Your task to perform on an android device: change alarm snooze length Image 0: 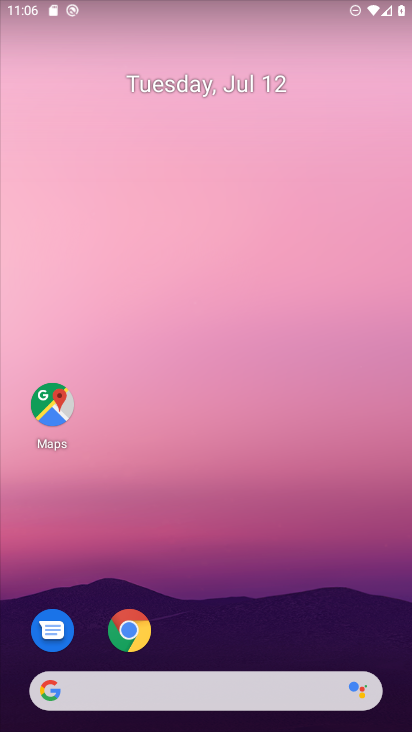
Step 0: drag from (273, 512) to (247, 3)
Your task to perform on an android device: change alarm snooze length Image 1: 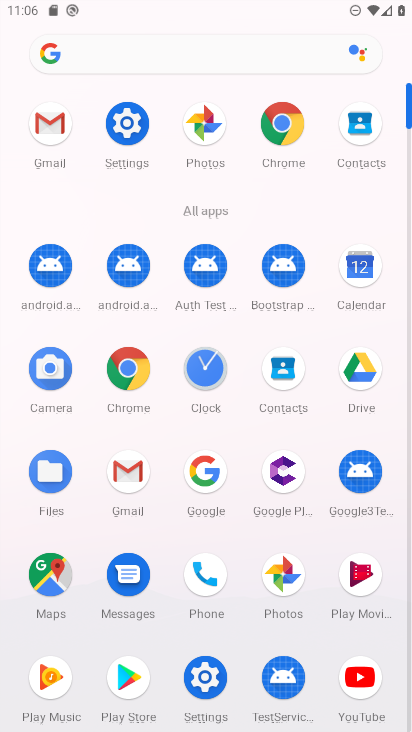
Step 1: click (214, 368)
Your task to perform on an android device: change alarm snooze length Image 2: 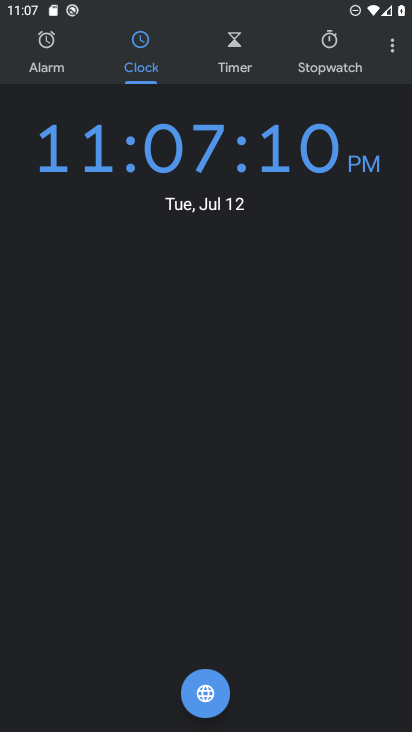
Step 2: click (399, 50)
Your task to perform on an android device: change alarm snooze length Image 3: 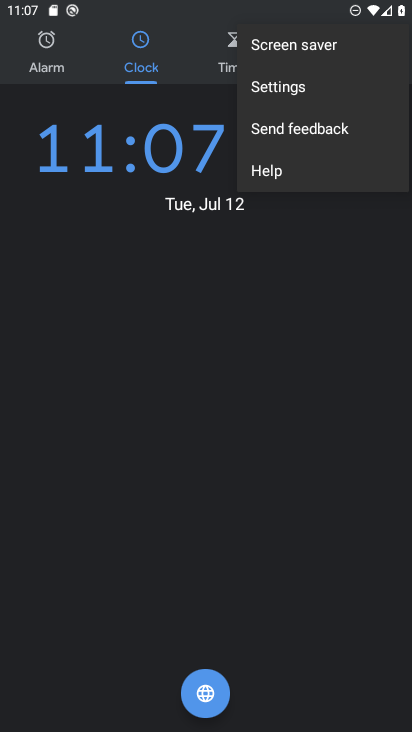
Step 3: click (274, 81)
Your task to perform on an android device: change alarm snooze length Image 4: 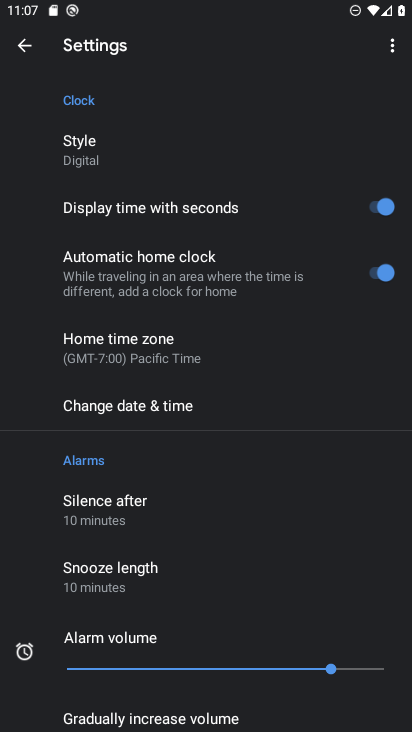
Step 4: click (144, 571)
Your task to perform on an android device: change alarm snooze length Image 5: 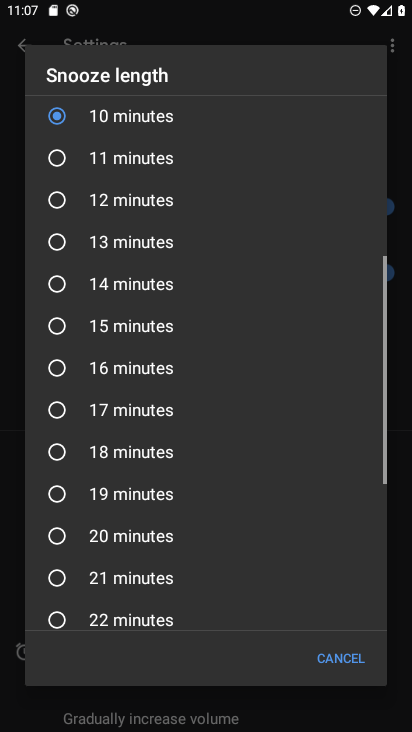
Step 5: click (158, 166)
Your task to perform on an android device: change alarm snooze length Image 6: 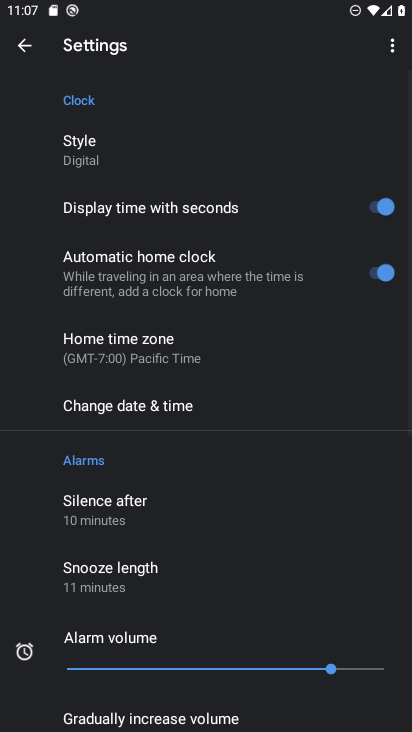
Step 6: task complete